Your task to perform on an android device: install app "Google Home" Image 0: 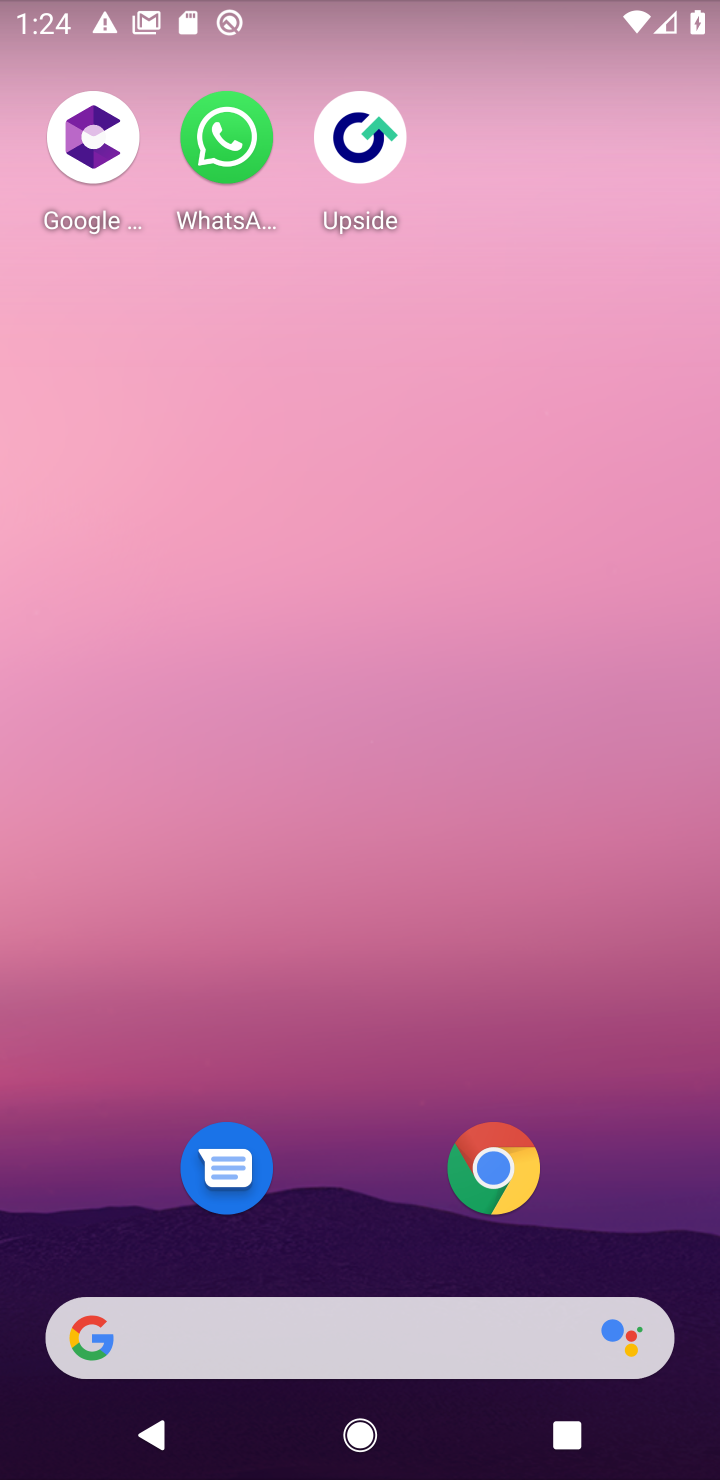
Step 0: drag from (330, 1340) to (524, 14)
Your task to perform on an android device: install app "Google Home" Image 1: 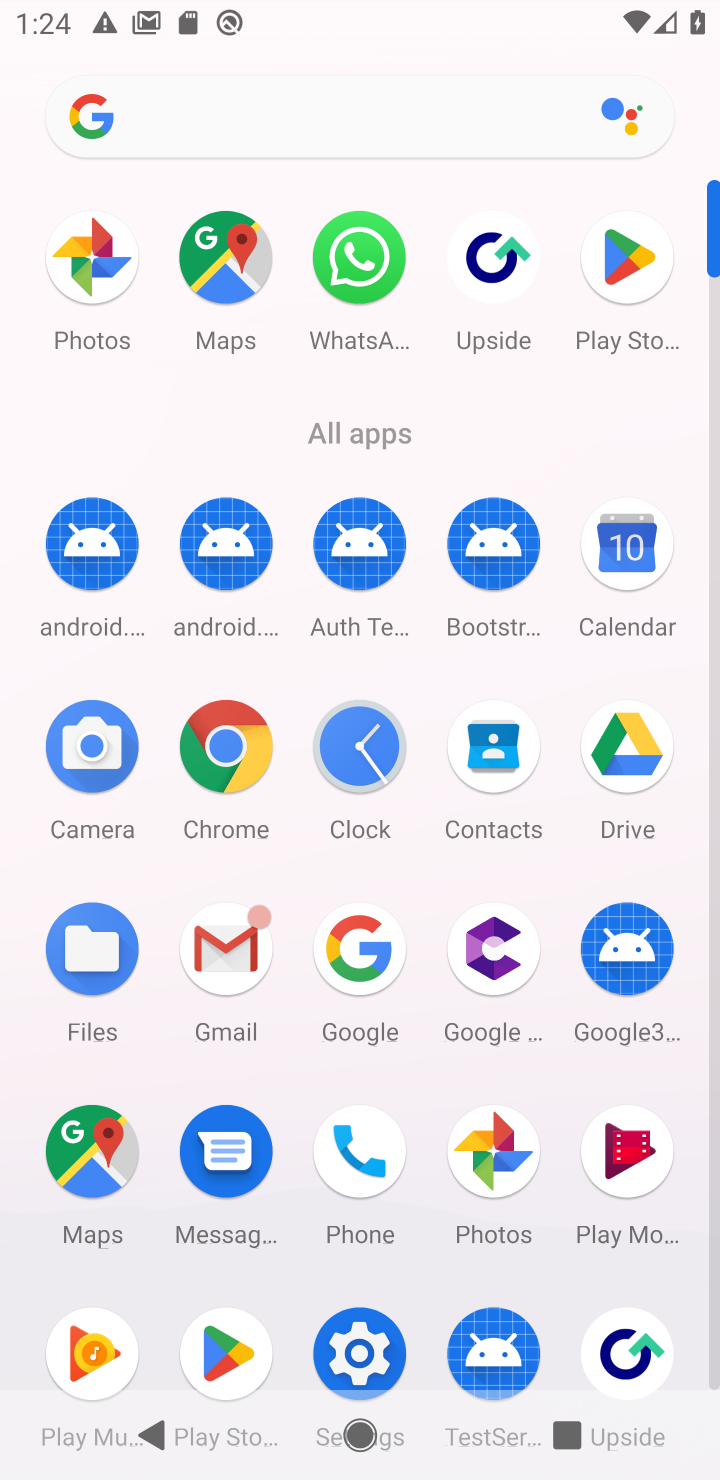
Step 1: click (622, 264)
Your task to perform on an android device: install app "Google Home" Image 2: 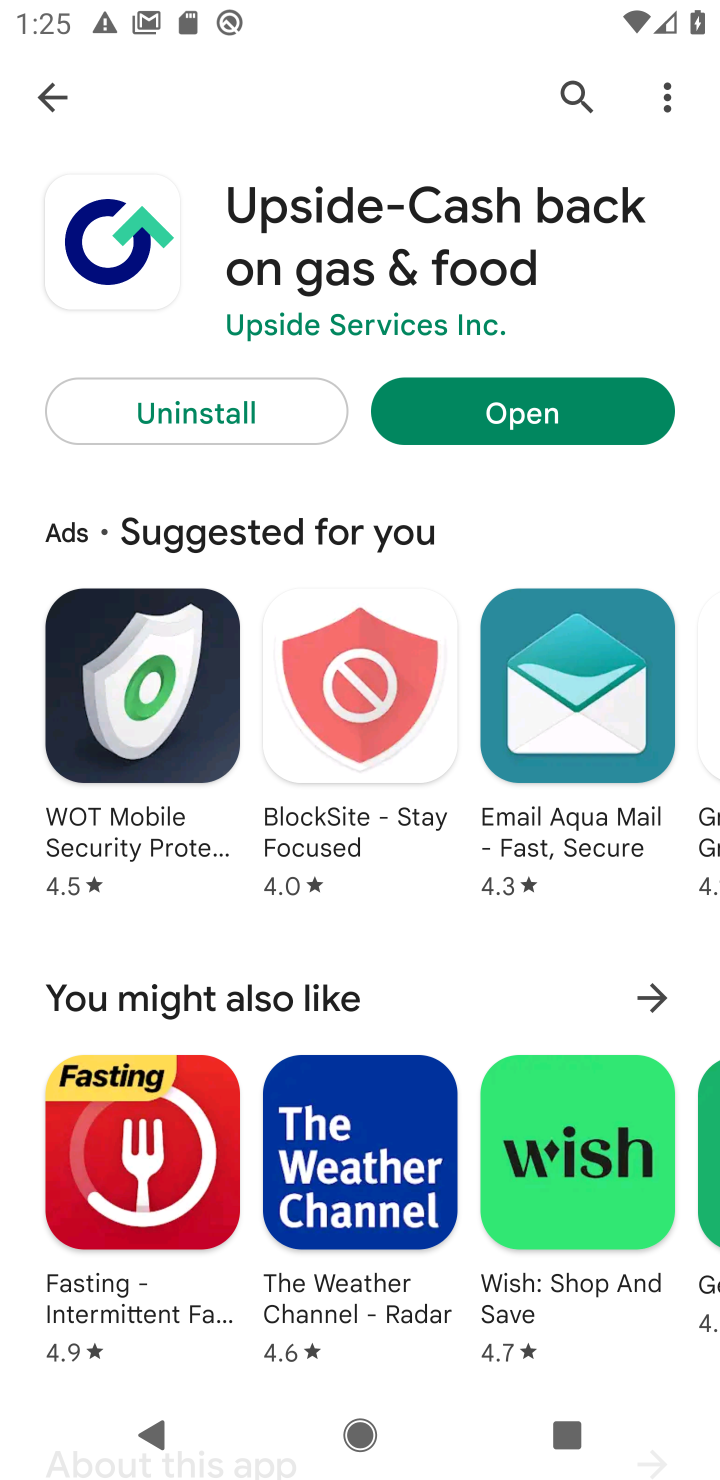
Step 2: press back button
Your task to perform on an android device: install app "Google Home" Image 3: 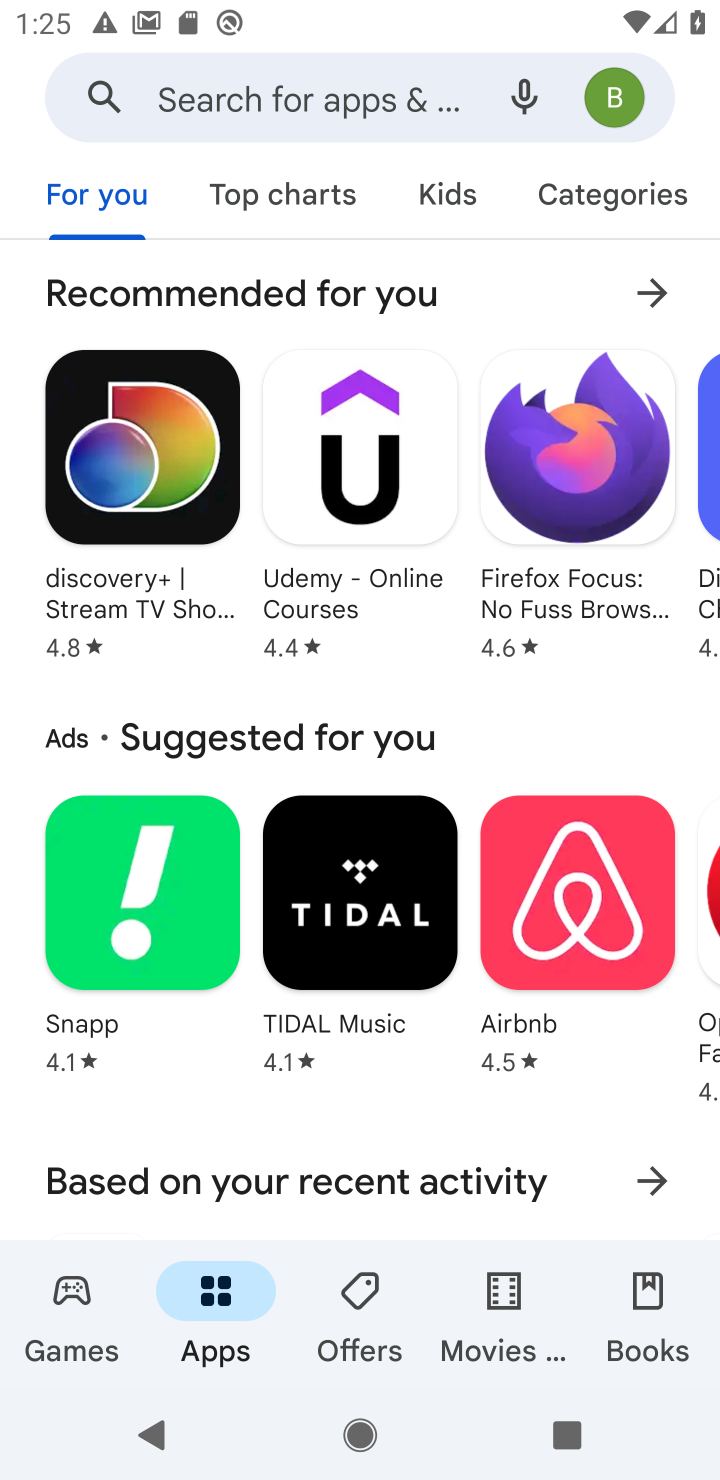
Step 3: click (394, 105)
Your task to perform on an android device: install app "Google Home" Image 4: 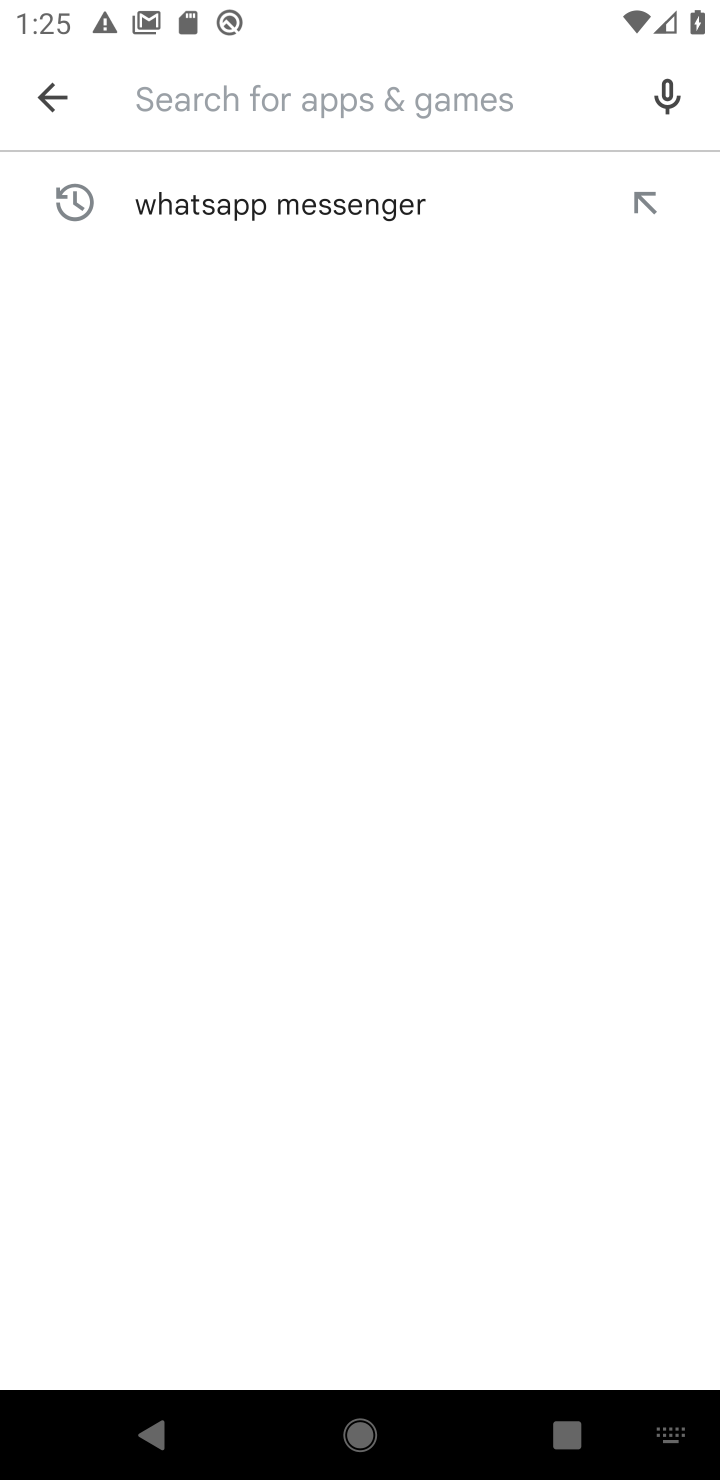
Step 4: type "Google Home"
Your task to perform on an android device: install app "Google Home" Image 5: 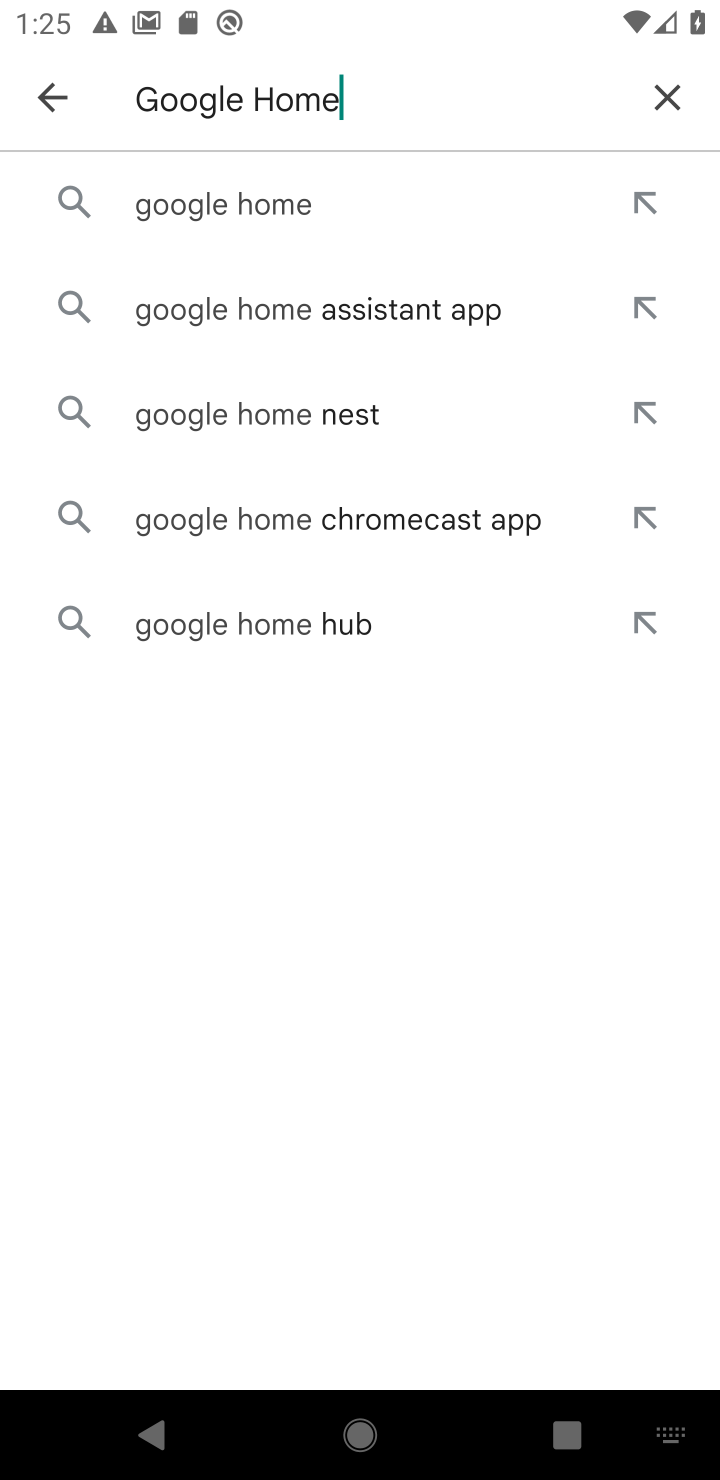
Step 5: click (291, 205)
Your task to perform on an android device: install app "Google Home" Image 6: 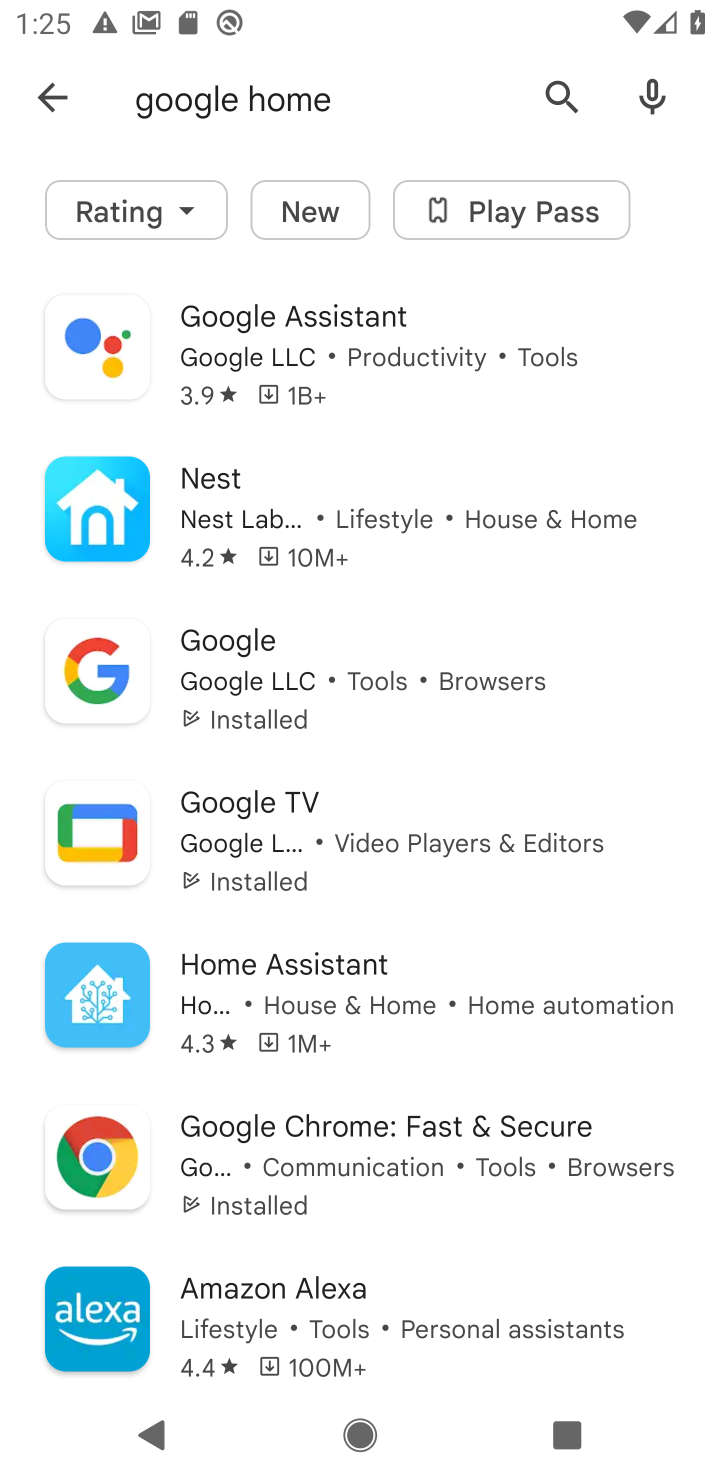
Step 6: task complete